Your task to perform on an android device: turn smart compose on in the gmail app Image 0: 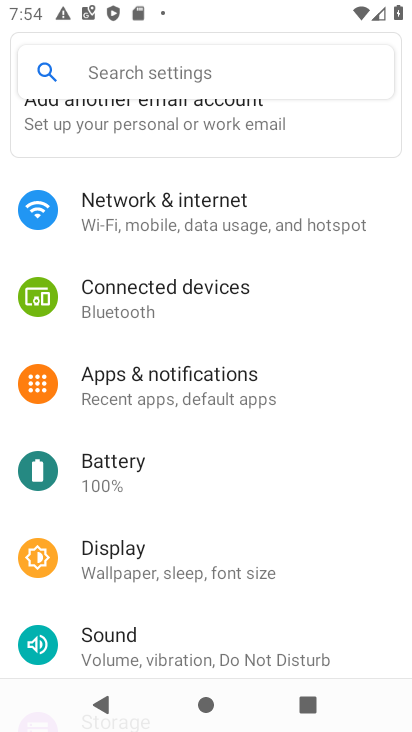
Step 0: press home button
Your task to perform on an android device: turn smart compose on in the gmail app Image 1: 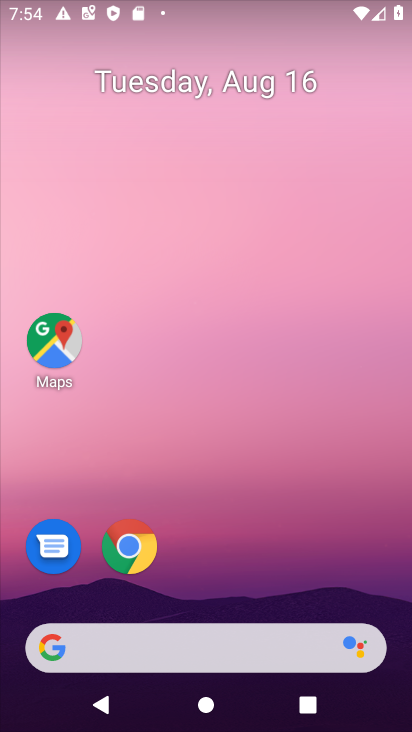
Step 1: drag from (258, 582) to (241, 42)
Your task to perform on an android device: turn smart compose on in the gmail app Image 2: 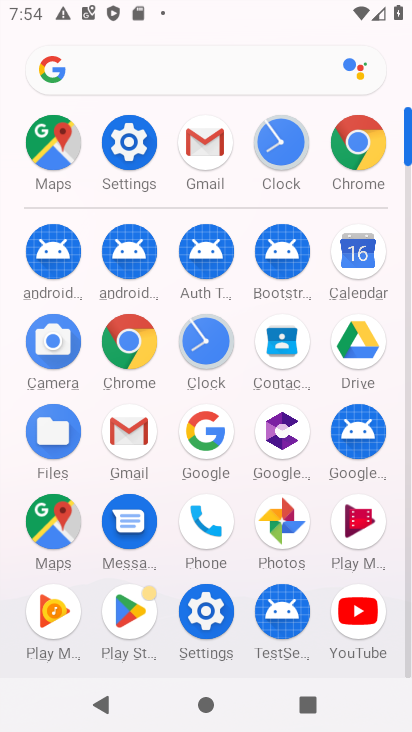
Step 2: click (213, 145)
Your task to perform on an android device: turn smart compose on in the gmail app Image 3: 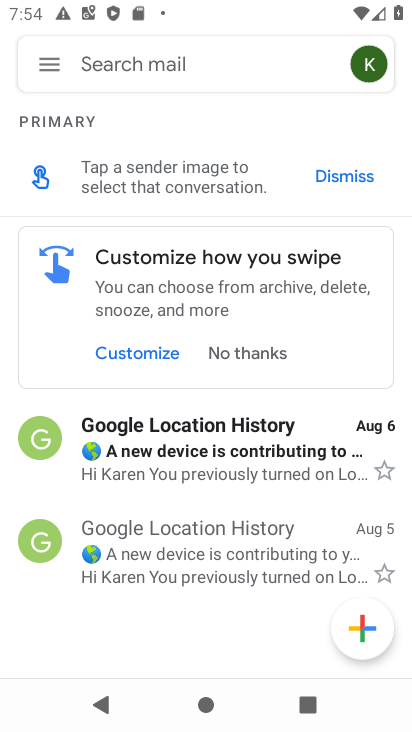
Step 3: click (50, 67)
Your task to perform on an android device: turn smart compose on in the gmail app Image 4: 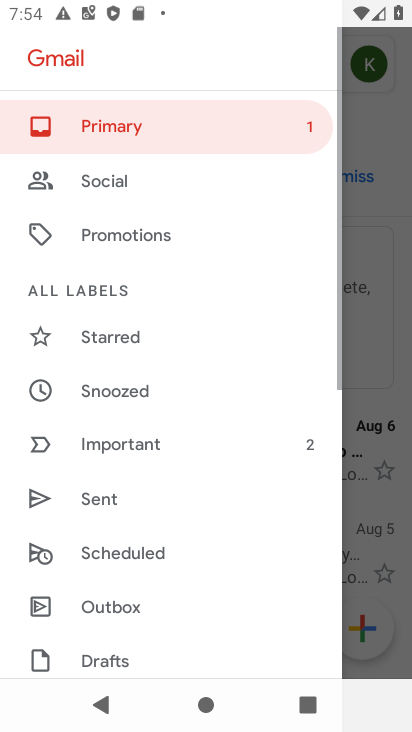
Step 4: drag from (130, 527) to (186, 6)
Your task to perform on an android device: turn smart compose on in the gmail app Image 5: 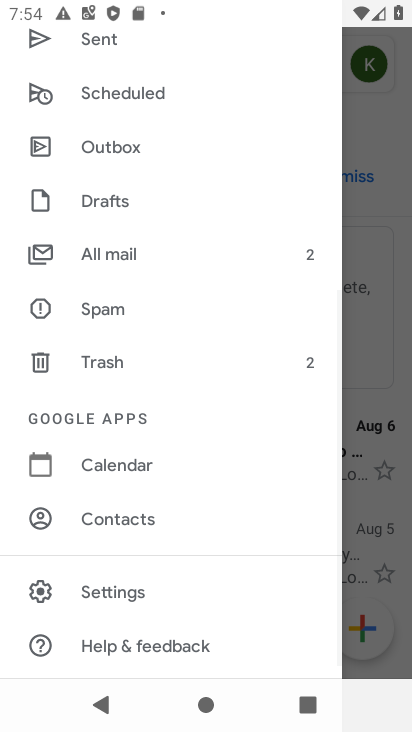
Step 5: click (136, 592)
Your task to perform on an android device: turn smart compose on in the gmail app Image 6: 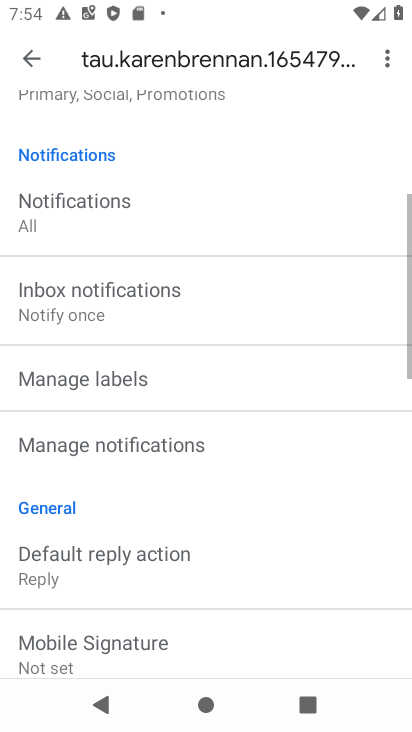
Step 6: task complete